Your task to perform on an android device: Show the shopping cart on target.com. Search for "macbook pro 15 inch" on target.com, select the first entry, add it to the cart, then select checkout. Image 0: 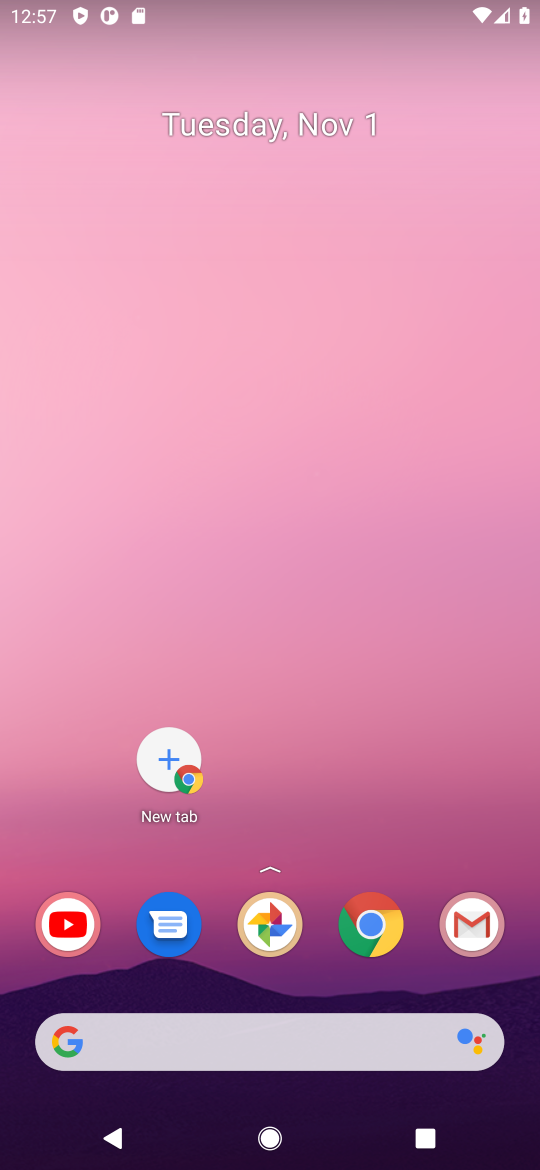
Step 0: click (384, 926)
Your task to perform on an android device: Show the shopping cart on target.com. Search for "macbook pro 15 inch" on target.com, select the first entry, add it to the cart, then select checkout. Image 1: 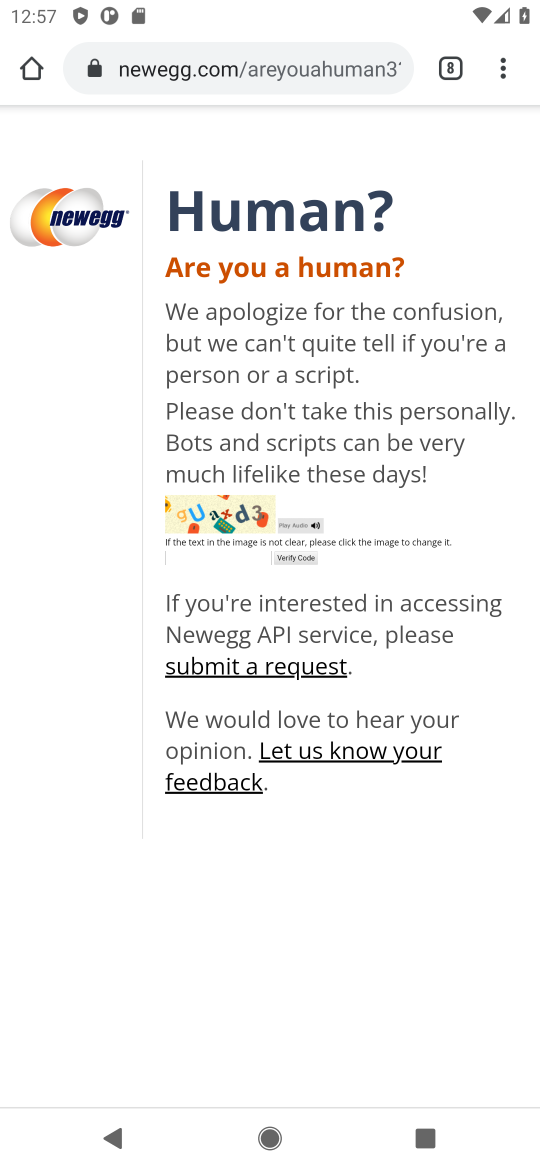
Step 1: click (243, 52)
Your task to perform on an android device: Show the shopping cart on target.com. Search for "macbook pro 15 inch" on target.com, select the first entry, add it to the cart, then select checkout. Image 2: 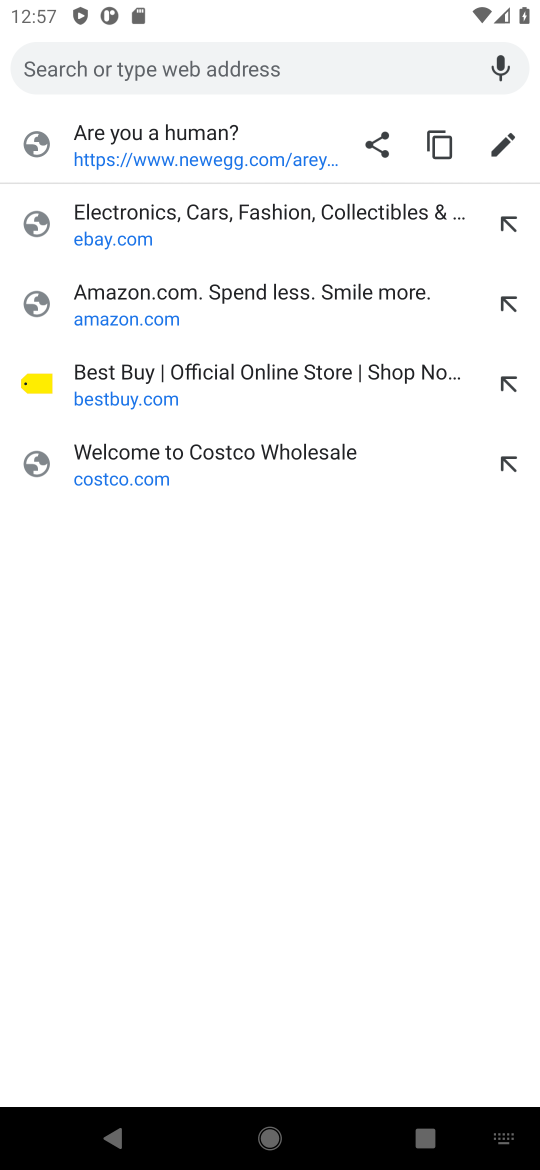
Step 2: type "targte.com"
Your task to perform on an android device: Show the shopping cart on target.com. Search for "macbook pro 15 inch" on target.com, select the first entry, add it to the cart, then select checkout. Image 3: 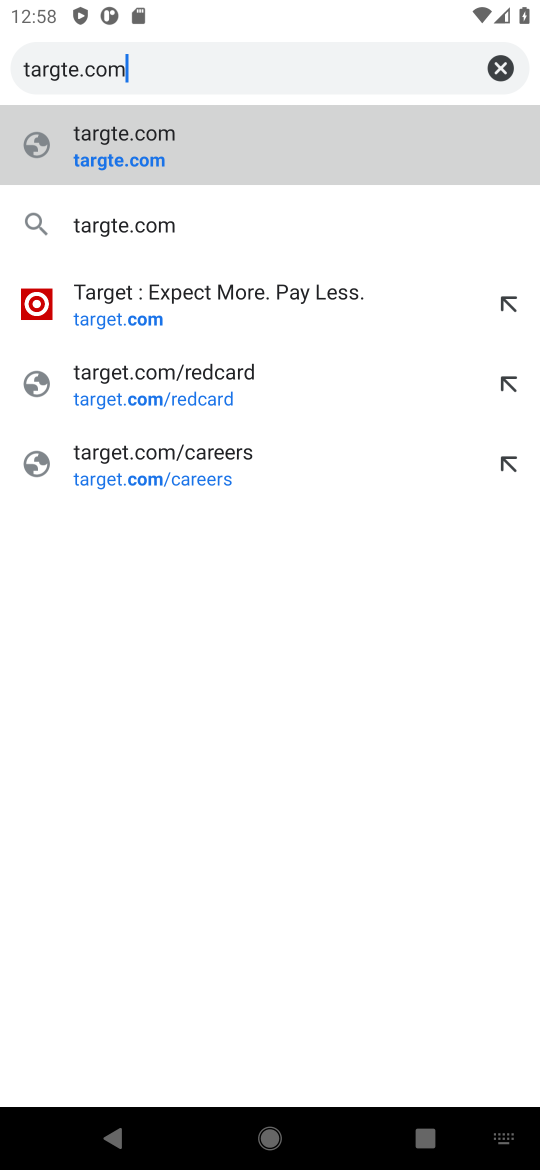
Step 3: click (115, 327)
Your task to perform on an android device: Show the shopping cart on target.com. Search for "macbook pro 15 inch" on target.com, select the first entry, add it to the cart, then select checkout. Image 4: 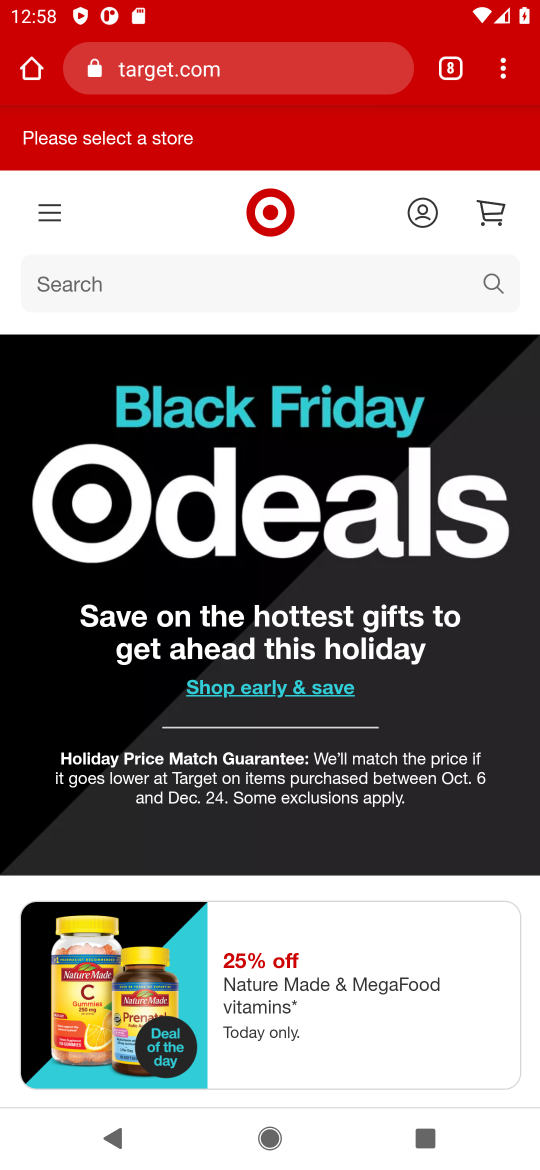
Step 4: click (496, 272)
Your task to perform on an android device: Show the shopping cart on target.com. Search for "macbook pro 15 inch" on target.com, select the first entry, add it to the cart, then select checkout. Image 5: 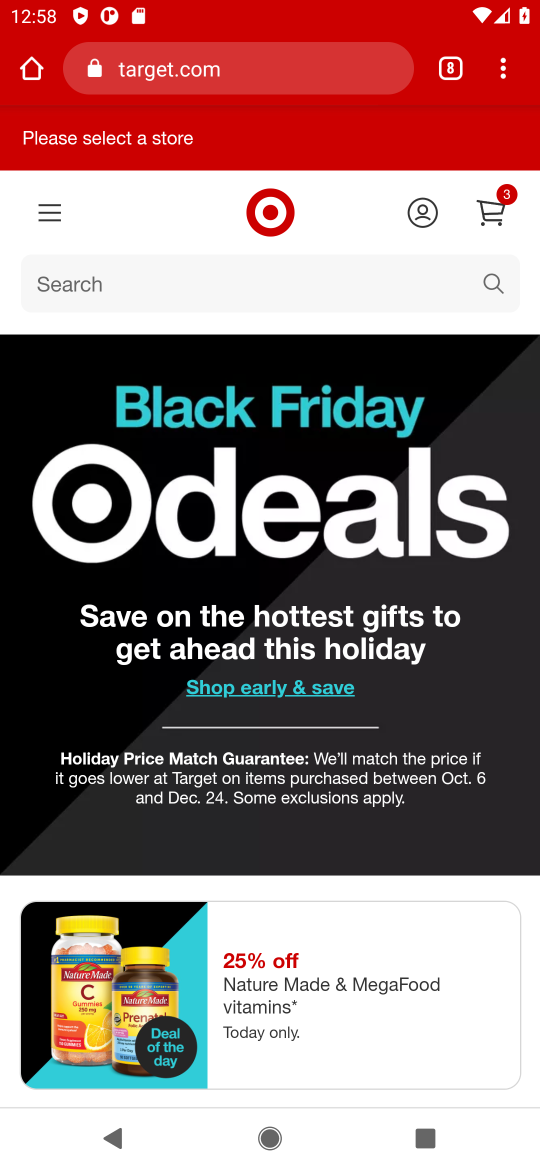
Step 5: click (485, 278)
Your task to perform on an android device: Show the shopping cart on target.com. Search for "macbook pro 15 inch" on target.com, select the first entry, add it to the cart, then select checkout. Image 6: 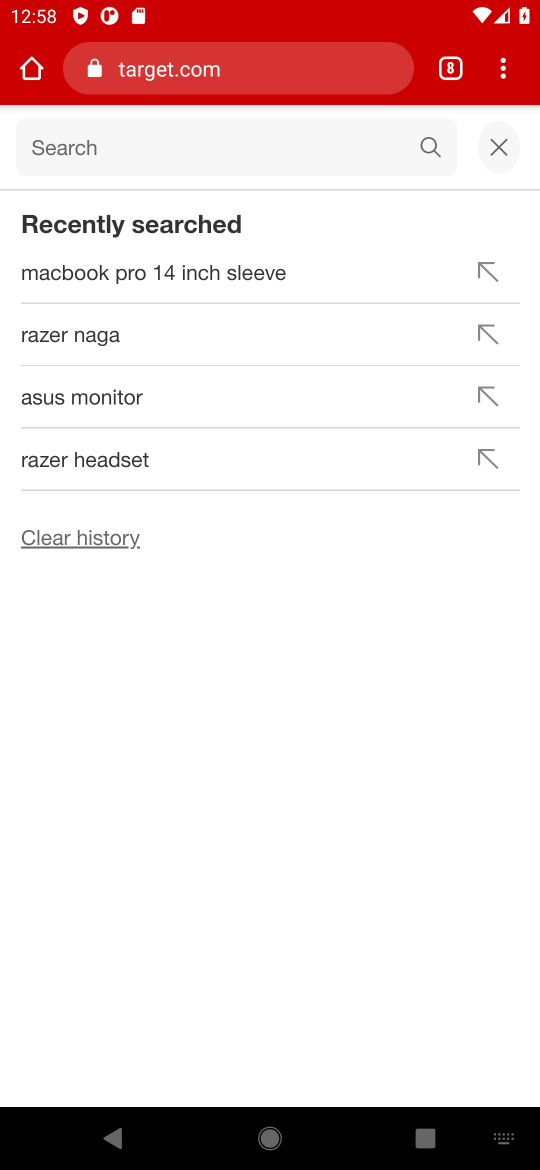
Step 6: type "macbook pro 15inch"
Your task to perform on an android device: Show the shopping cart on target.com. Search for "macbook pro 15 inch" on target.com, select the first entry, add it to the cart, then select checkout. Image 7: 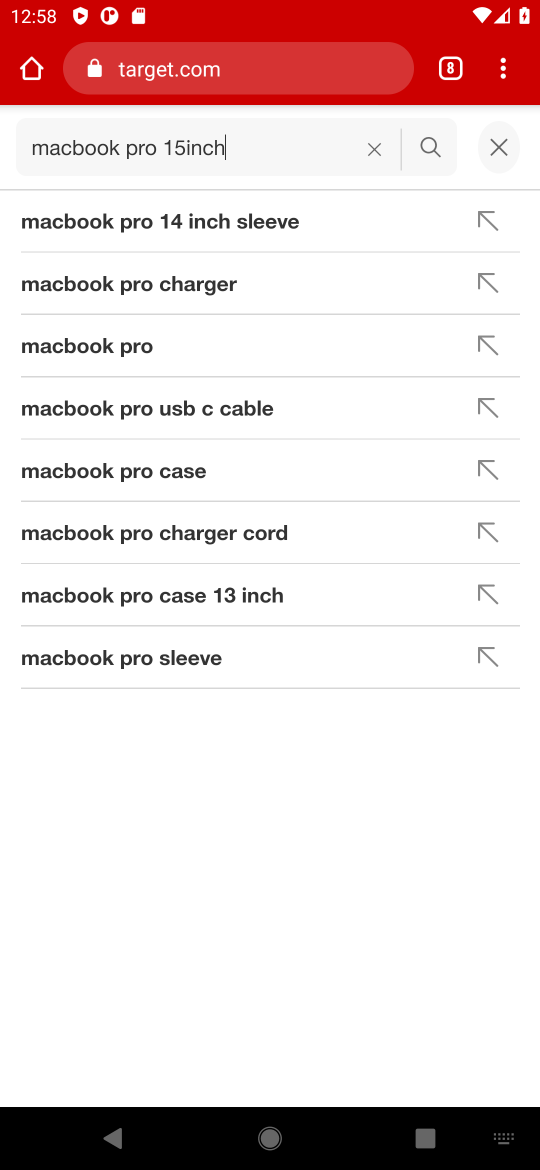
Step 7: click (209, 228)
Your task to perform on an android device: Show the shopping cart on target.com. Search for "macbook pro 15 inch" on target.com, select the first entry, add it to the cart, then select checkout. Image 8: 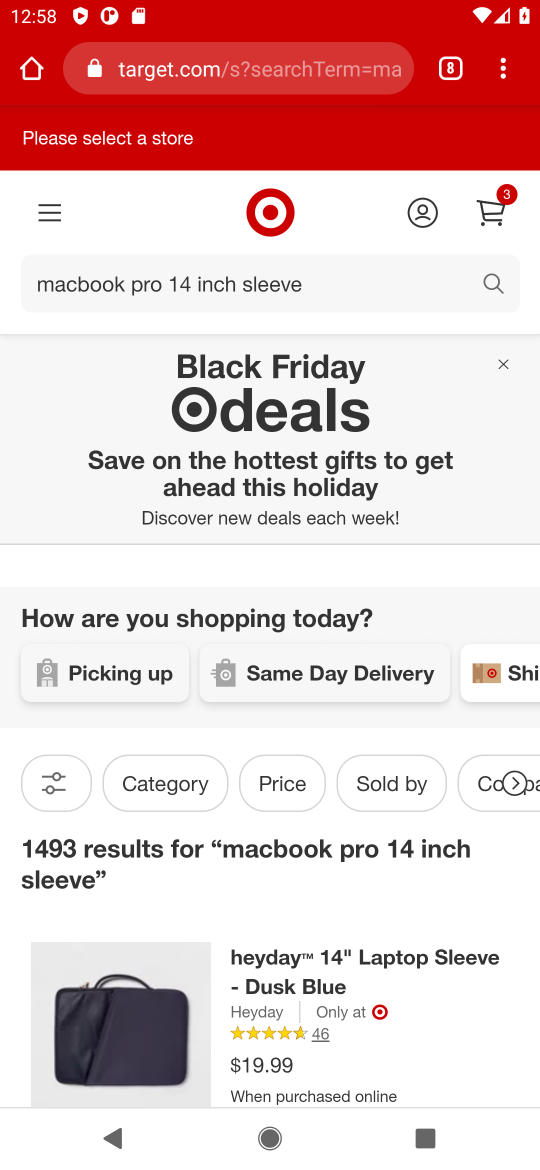
Step 8: drag from (416, 962) to (425, 204)
Your task to perform on an android device: Show the shopping cart on target.com. Search for "macbook pro 15 inch" on target.com, select the first entry, add it to the cart, then select checkout. Image 9: 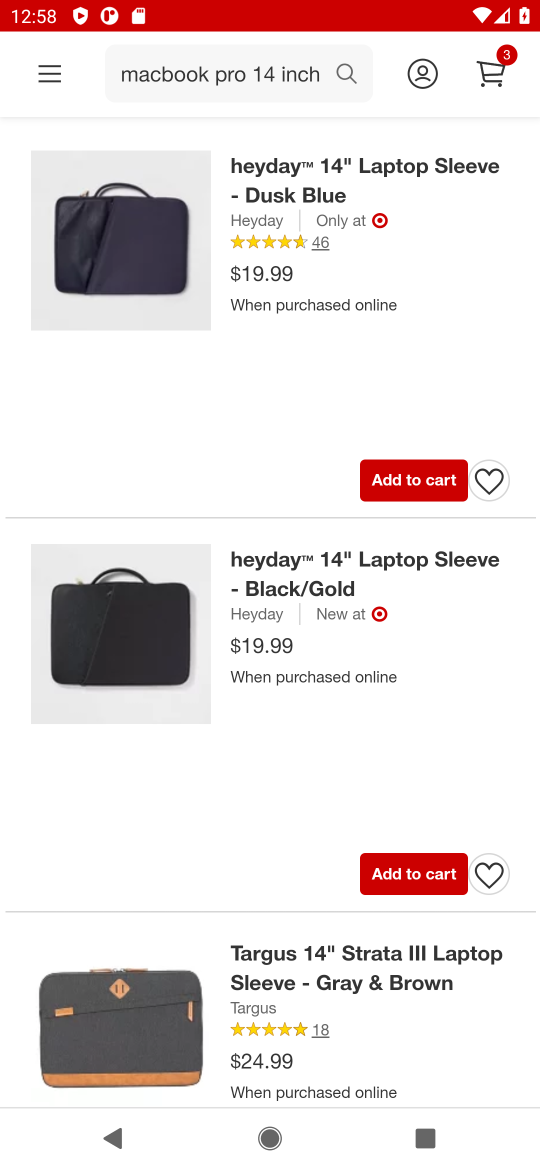
Step 9: click (286, 553)
Your task to perform on an android device: Show the shopping cart on target.com. Search for "macbook pro 15 inch" on target.com, select the first entry, add it to the cart, then select checkout. Image 10: 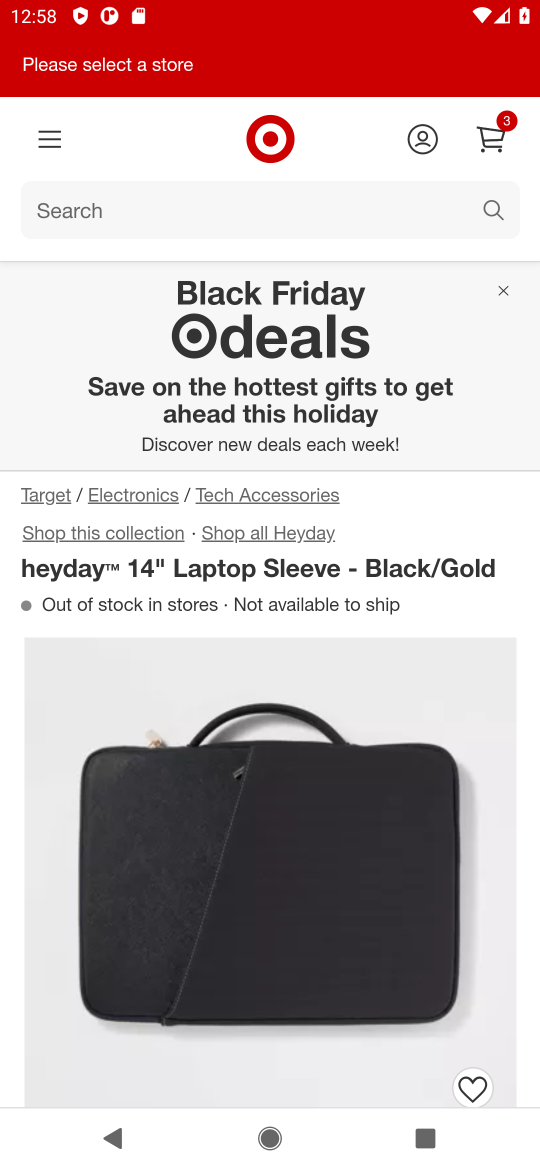
Step 10: drag from (413, 886) to (413, 587)
Your task to perform on an android device: Show the shopping cart on target.com. Search for "macbook pro 15 inch" on target.com, select the first entry, add it to the cart, then select checkout. Image 11: 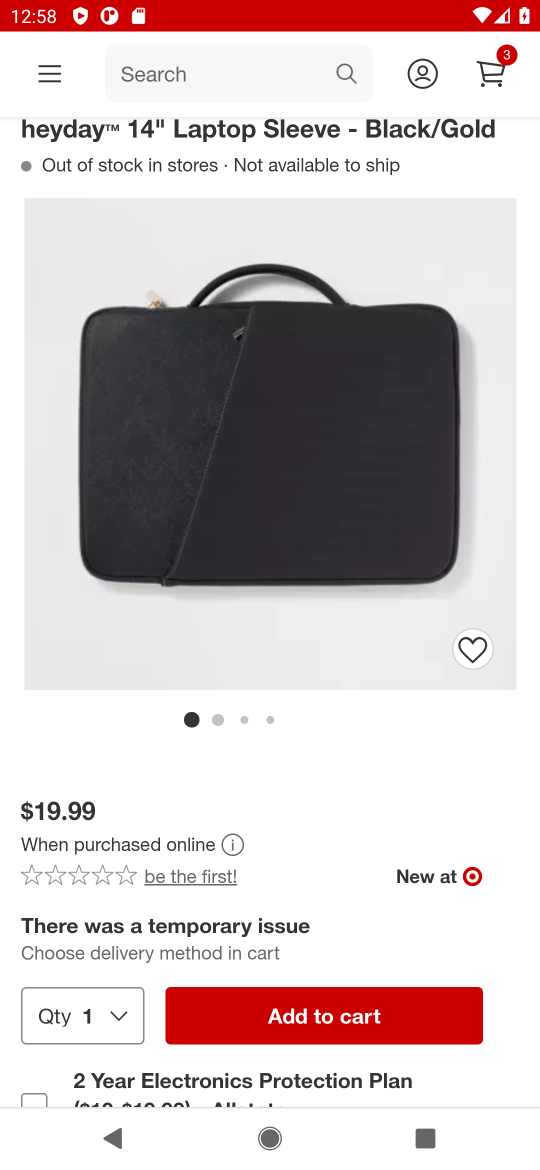
Step 11: drag from (271, 969) to (278, 652)
Your task to perform on an android device: Show the shopping cart on target.com. Search for "macbook pro 15 inch" on target.com, select the first entry, add it to the cart, then select checkout. Image 12: 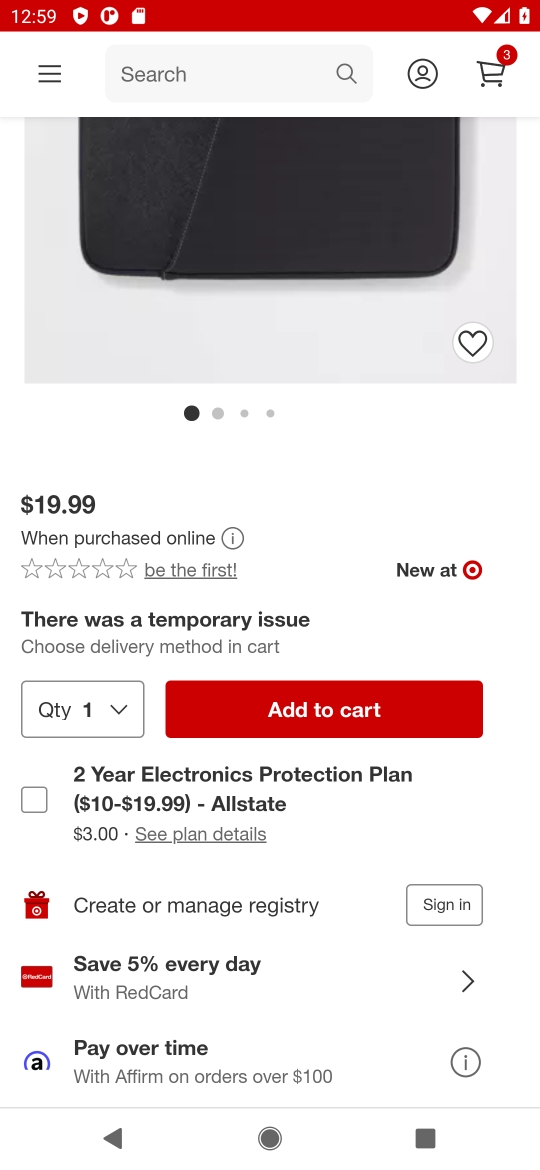
Step 12: drag from (308, 790) to (340, 533)
Your task to perform on an android device: Show the shopping cart on target.com. Search for "macbook pro 15 inch" on target.com, select the first entry, add it to the cart, then select checkout. Image 13: 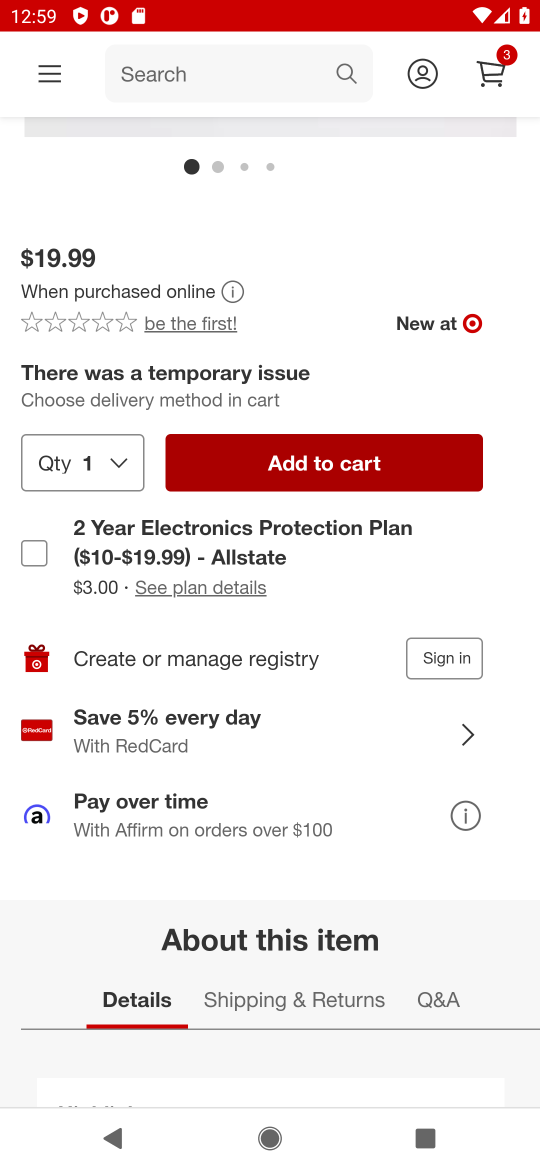
Step 13: click (376, 474)
Your task to perform on an android device: Show the shopping cart on target.com. Search for "macbook pro 15 inch" on target.com, select the first entry, add it to the cart, then select checkout. Image 14: 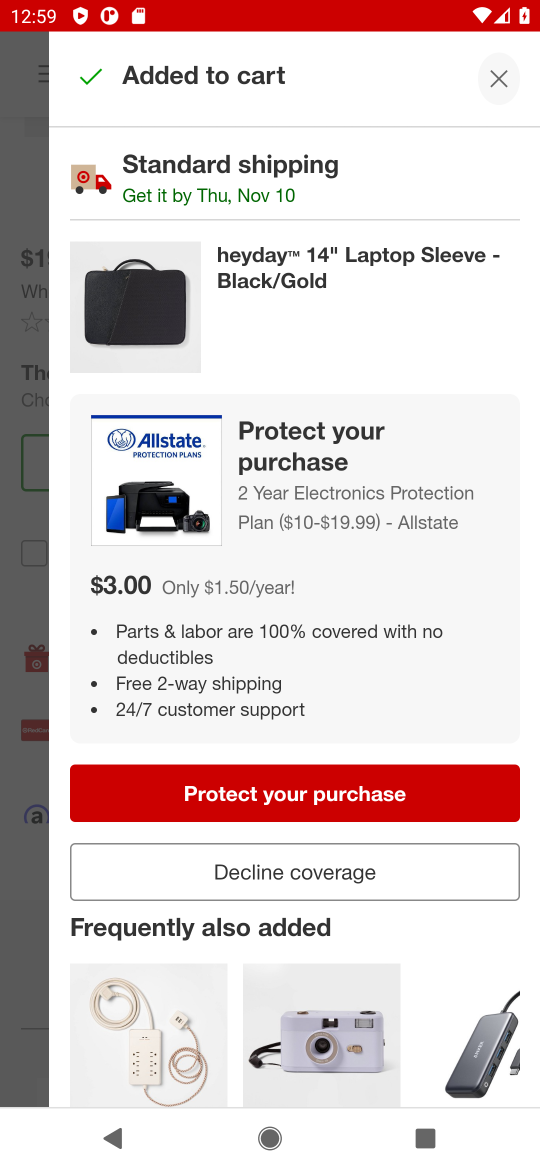
Step 14: click (344, 788)
Your task to perform on an android device: Show the shopping cart on target.com. Search for "macbook pro 15 inch" on target.com, select the first entry, add it to the cart, then select checkout. Image 15: 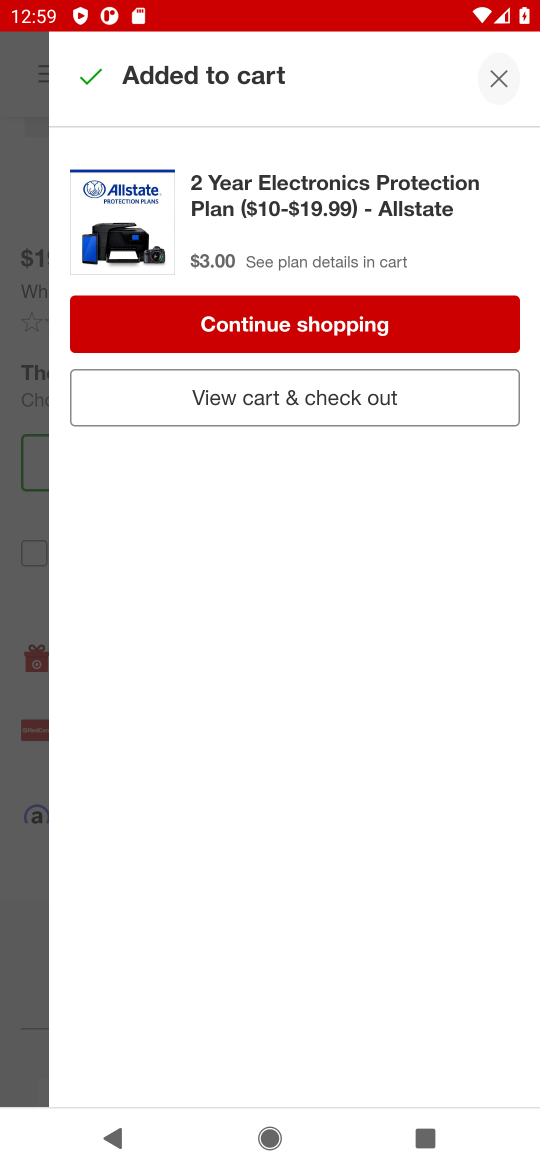
Step 15: click (312, 392)
Your task to perform on an android device: Show the shopping cart on target.com. Search for "macbook pro 15 inch" on target.com, select the first entry, add it to the cart, then select checkout. Image 16: 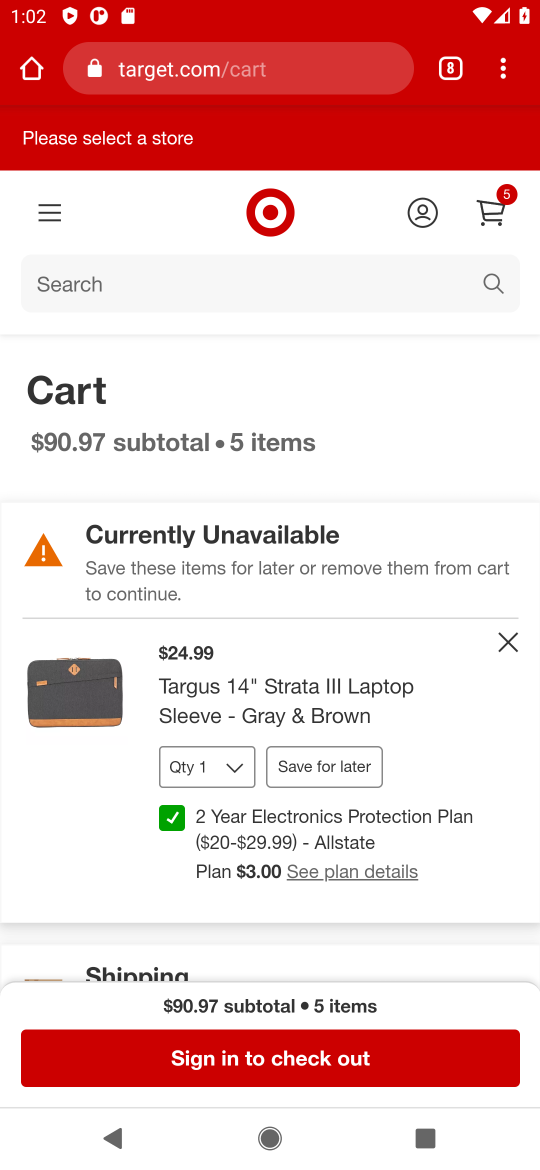
Step 16: click (305, 1068)
Your task to perform on an android device: Show the shopping cart on target.com. Search for "macbook pro 15 inch" on target.com, select the first entry, add it to the cart, then select checkout. Image 17: 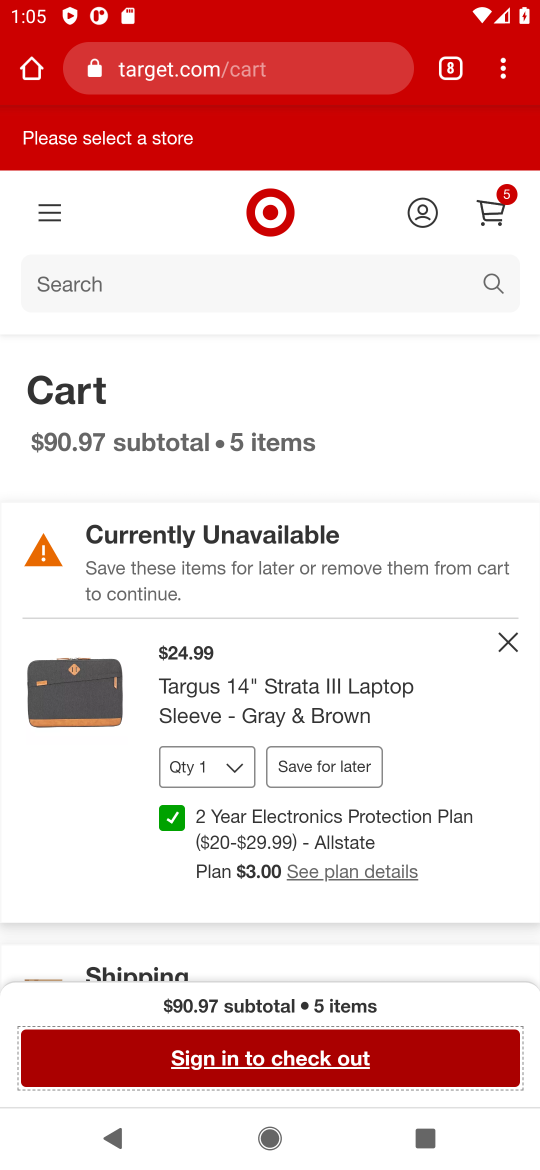
Step 17: drag from (146, 866) to (248, 562)
Your task to perform on an android device: Show the shopping cart on target.com. Search for "macbook pro 15 inch" on target.com, select the first entry, add it to the cart, then select checkout. Image 18: 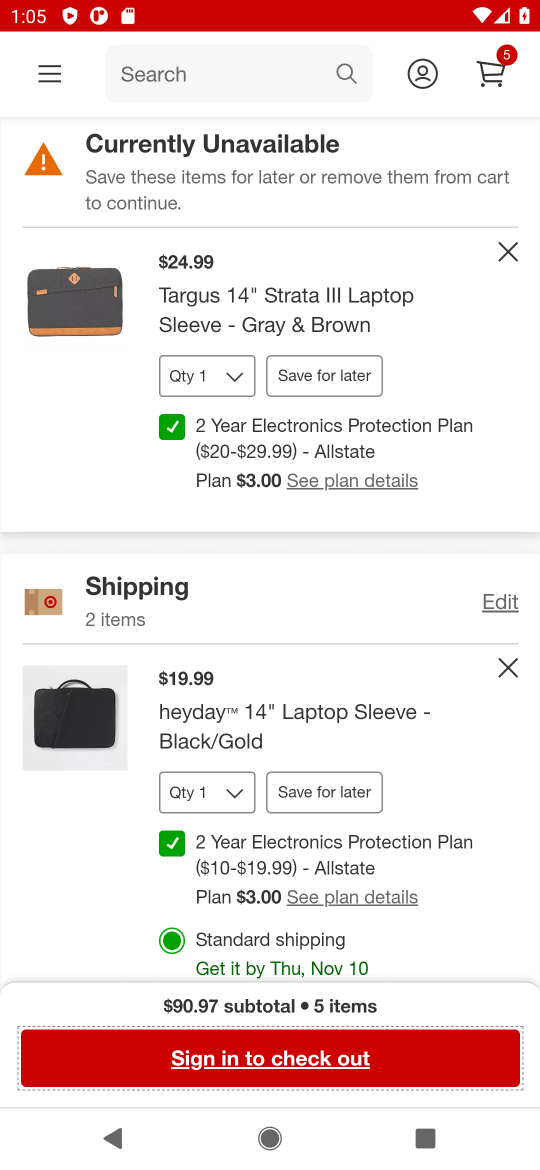
Step 18: click (323, 1061)
Your task to perform on an android device: Show the shopping cart on target.com. Search for "macbook pro 15 inch" on target.com, select the first entry, add it to the cart, then select checkout. Image 19: 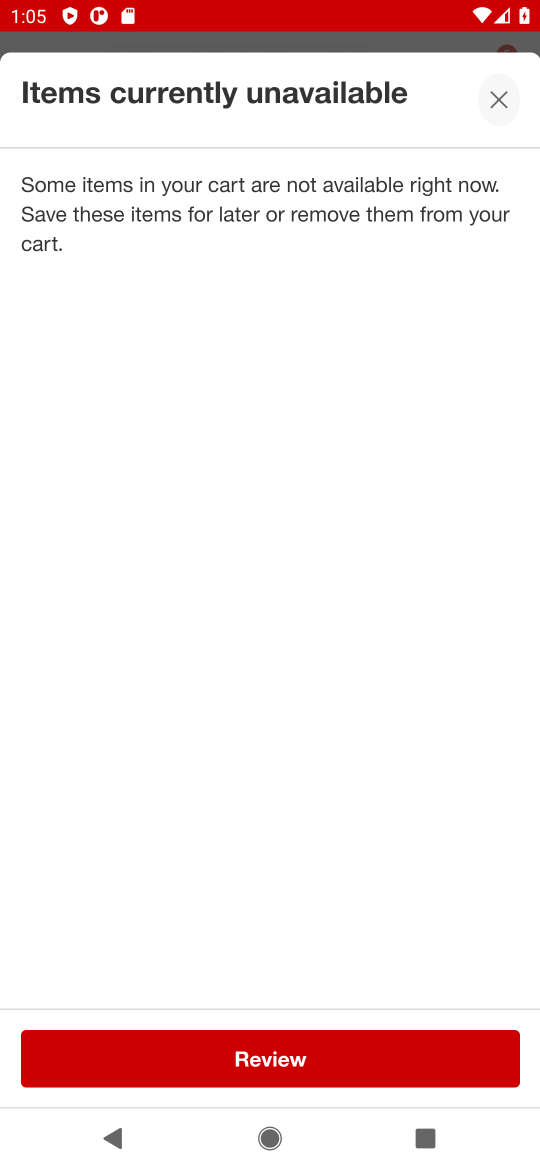
Step 19: task complete